Your task to perform on an android device: Open Google Maps and go to "Timeline" Image 0: 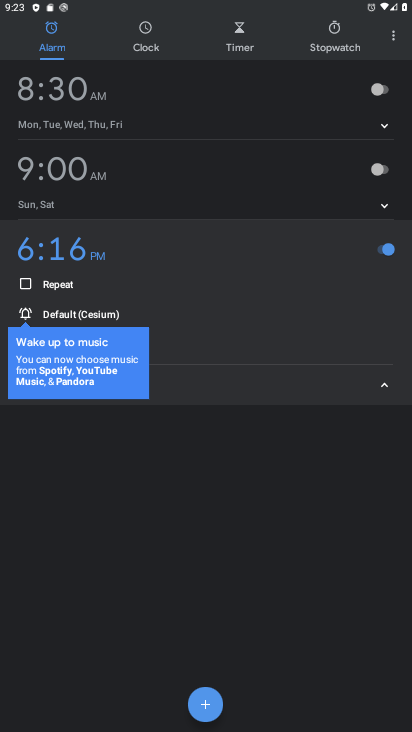
Step 0: press home button
Your task to perform on an android device: Open Google Maps and go to "Timeline" Image 1: 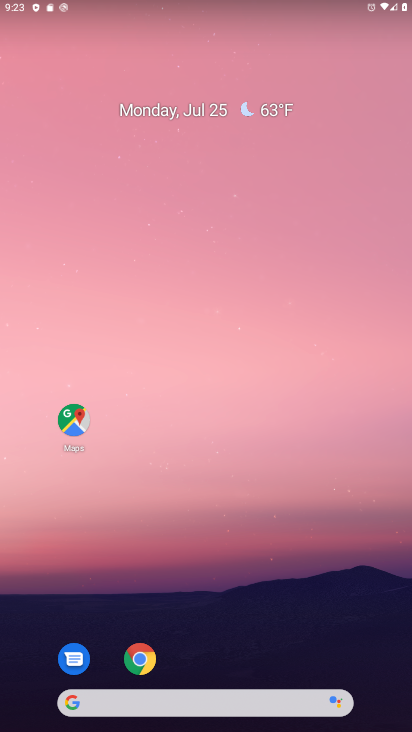
Step 1: drag from (241, 707) to (292, 95)
Your task to perform on an android device: Open Google Maps and go to "Timeline" Image 2: 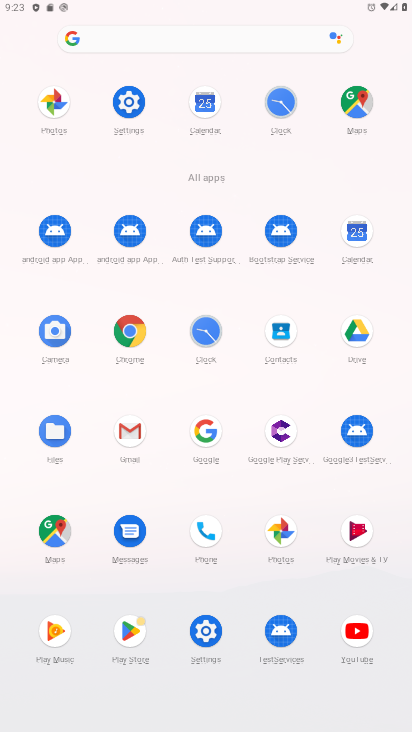
Step 2: click (53, 530)
Your task to perform on an android device: Open Google Maps and go to "Timeline" Image 3: 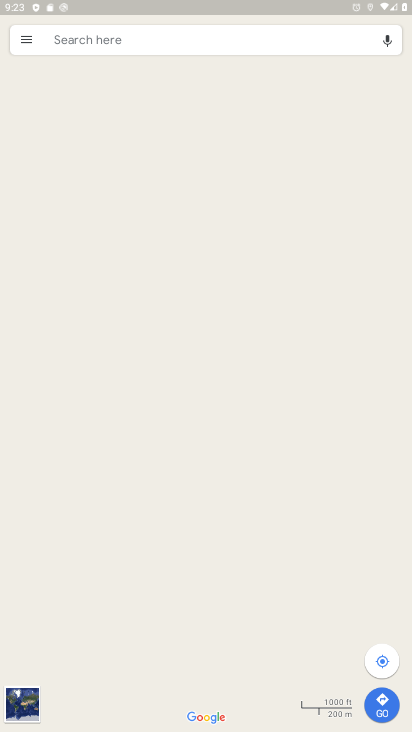
Step 3: click (23, 37)
Your task to perform on an android device: Open Google Maps and go to "Timeline" Image 4: 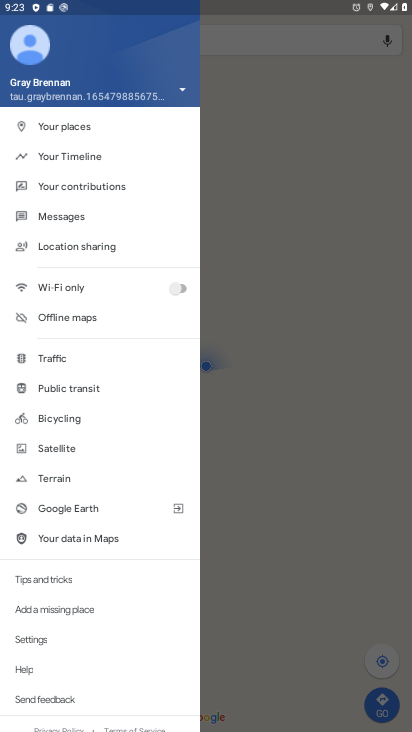
Step 4: click (61, 157)
Your task to perform on an android device: Open Google Maps and go to "Timeline" Image 5: 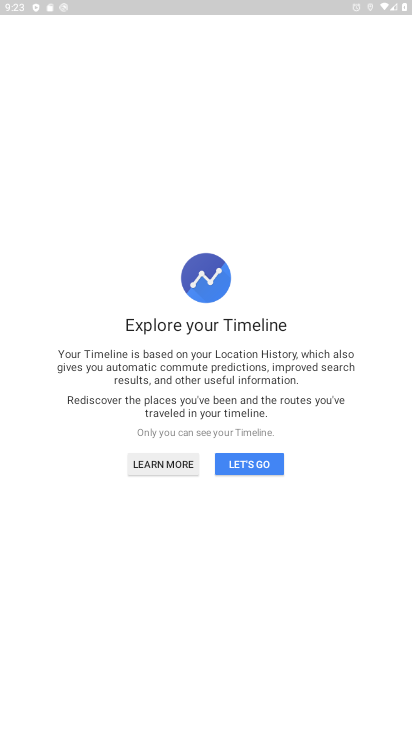
Step 5: task complete